Your task to perform on an android device: Go to settings Image 0: 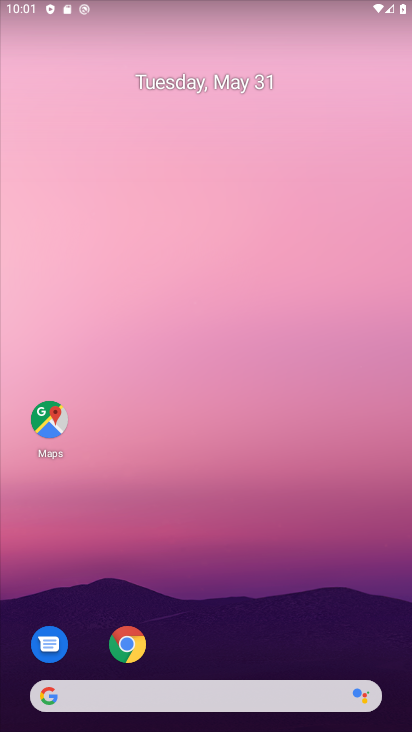
Step 0: drag from (240, 639) to (325, 3)
Your task to perform on an android device: Go to settings Image 1: 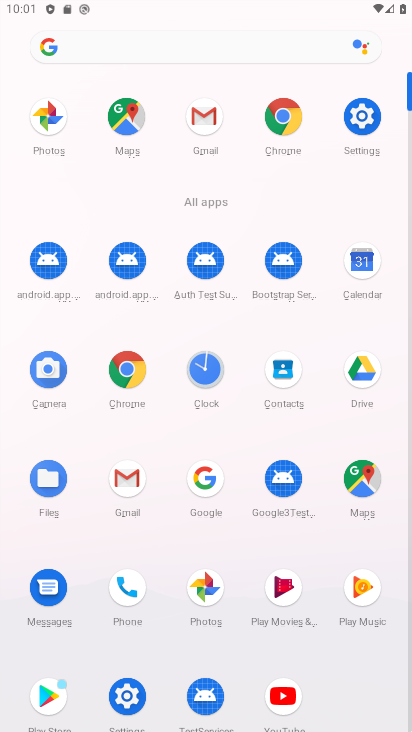
Step 1: click (359, 118)
Your task to perform on an android device: Go to settings Image 2: 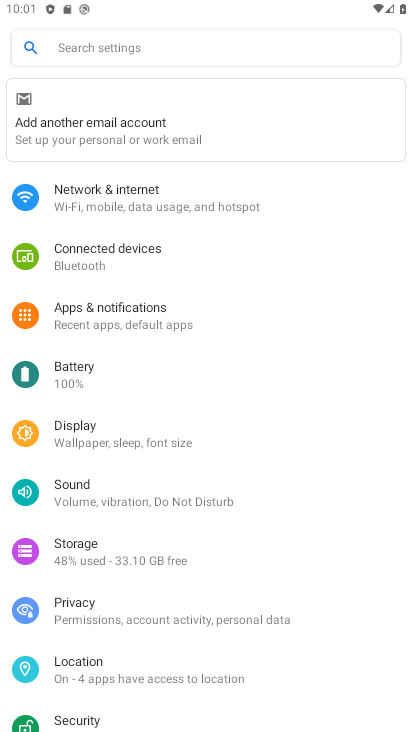
Step 2: task complete